Your task to perform on an android device: Open Chrome and go to settings Image 0: 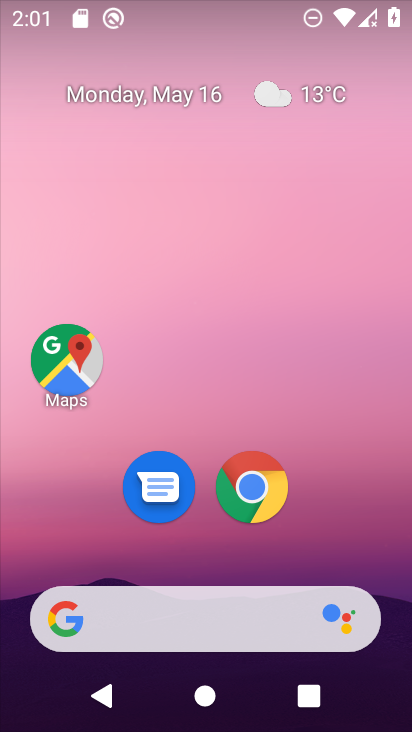
Step 0: click (248, 484)
Your task to perform on an android device: Open Chrome and go to settings Image 1: 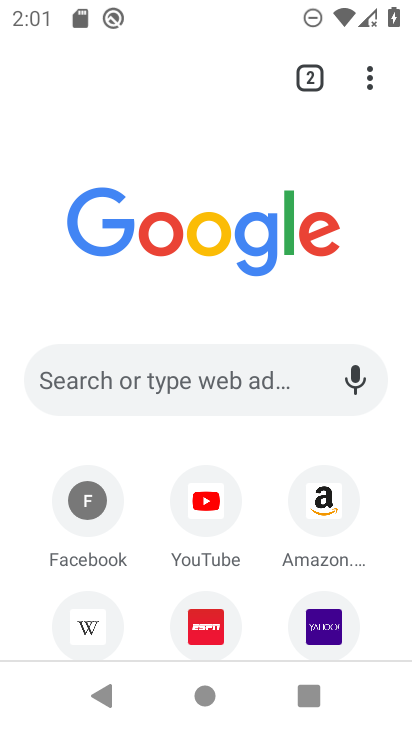
Step 1: click (369, 70)
Your task to perform on an android device: Open Chrome and go to settings Image 2: 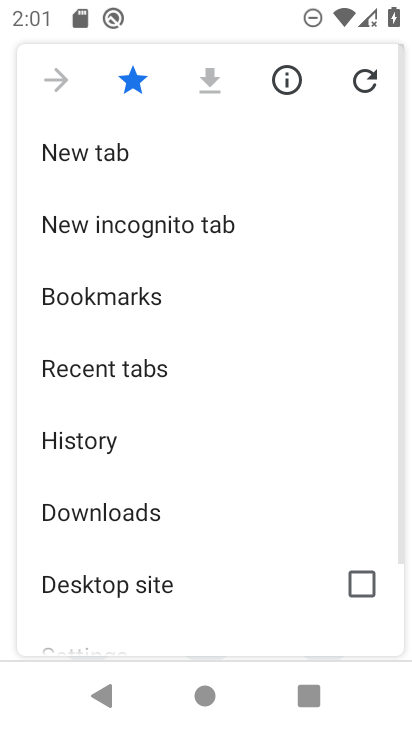
Step 2: drag from (291, 575) to (285, 259)
Your task to perform on an android device: Open Chrome and go to settings Image 3: 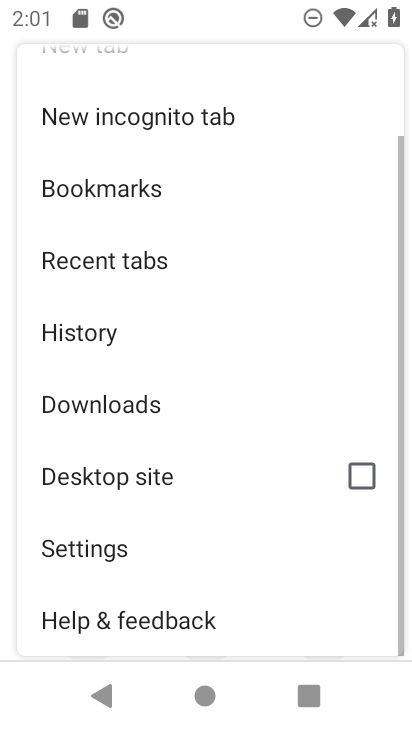
Step 3: click (87, 552)
Your task to perform on an android device: Open Chrome and go to settings Image 4: 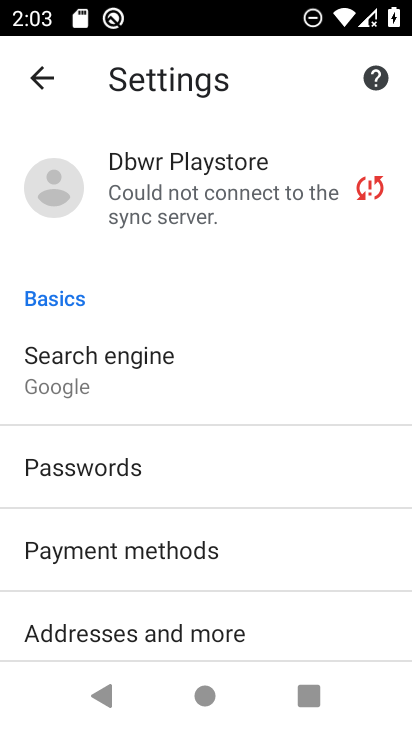
Step 4: task complete